Your task to perform on an android device: Open Chrome and go to settings Image 0: 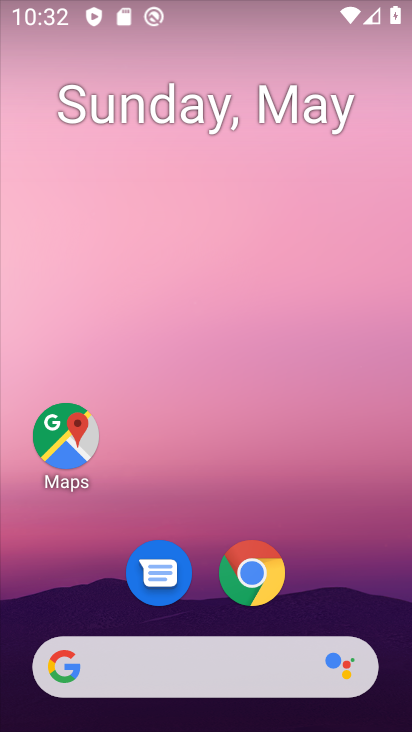
Step 0: click (232, 564)
Your task to perform on an android device: Open Chrome and go to settings Image 1: 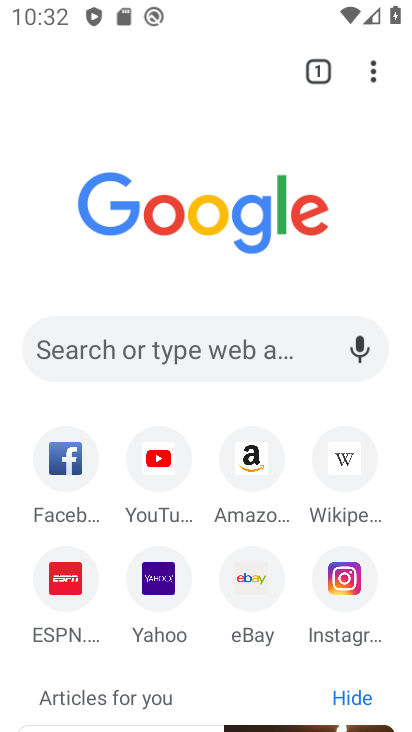
Step 1: click (388, 66)
Your task to perform on an android device: Open Chrome and go to settings Image 2: 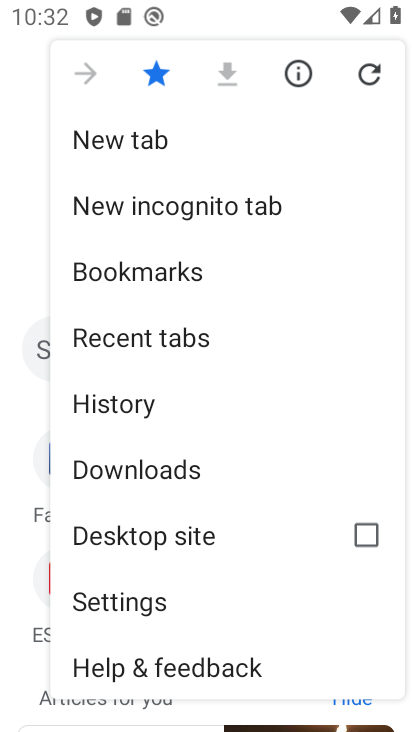
Step 2: click (149, 600)
Your task to perform on an android device: Open Chrome and go to settings Image 3: 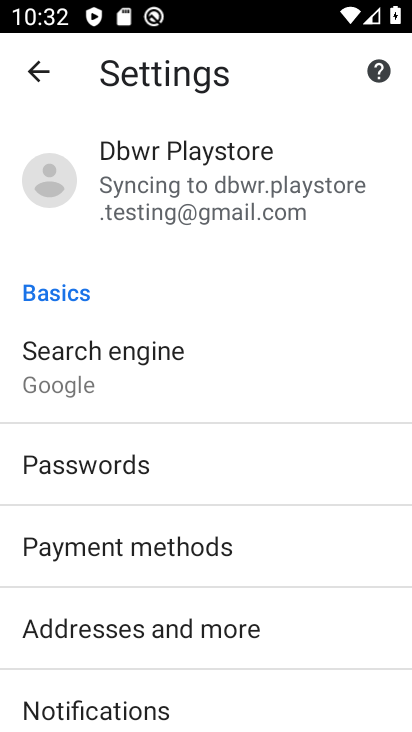
Step 3: task complete